Your task to perform on an android device: open a new tab in the chrome app Image 0: 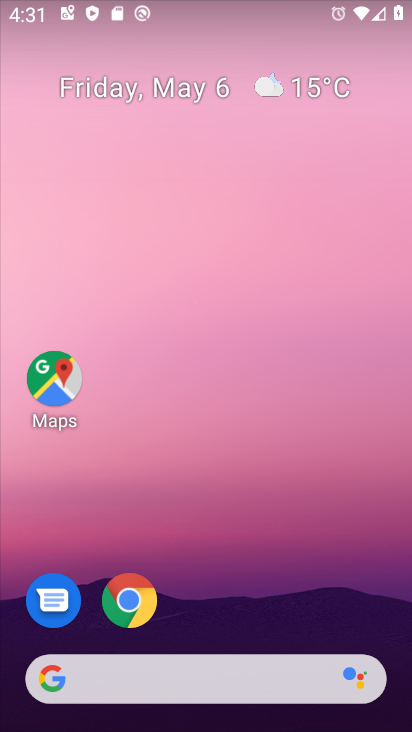
Step 0: click (148, 597)
Your task to perform on an android device: open a new tab in the chrome app Image 1: 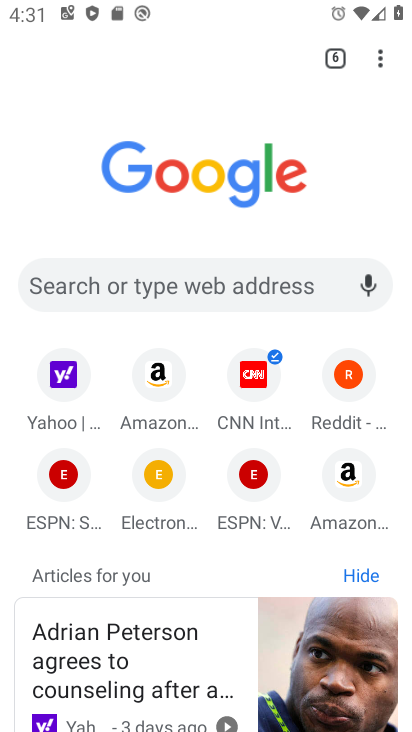
Step 1: click (374, 62)
Your task to perform on an android device: open a new tab in the chrome app Image 2: 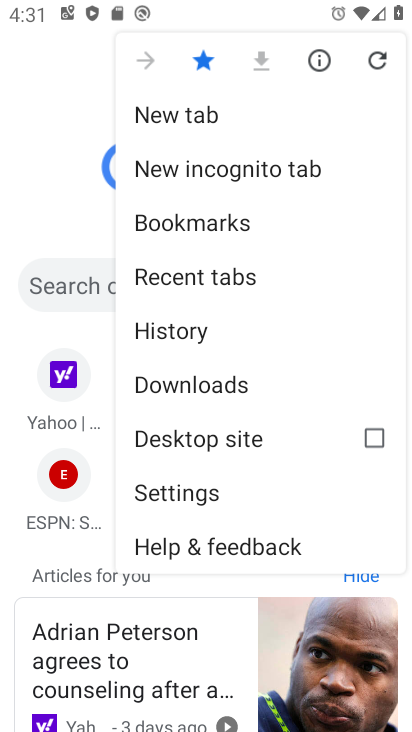
Step 2: click (231, 125)
Your task to perform on an android device: open a new tab in the chrome app Image 3: 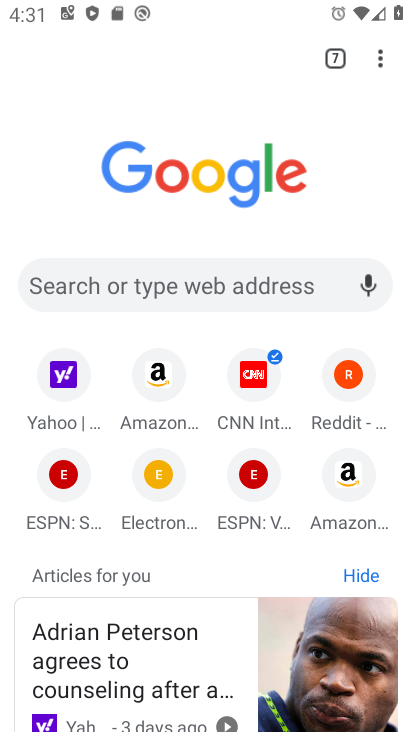
Step 3: task complete